Your task to perform on an android device: delete browsing data in the chrome app Image 0: 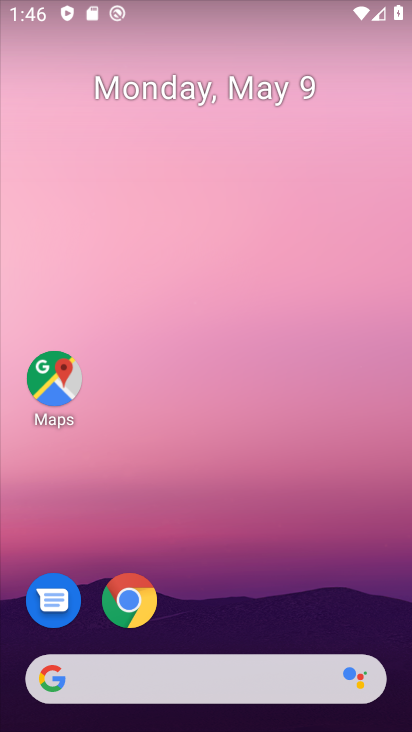
Step 0: click (139, 599)
Your task to perform on an android device: delete browsing data in the chrome app Image 1: 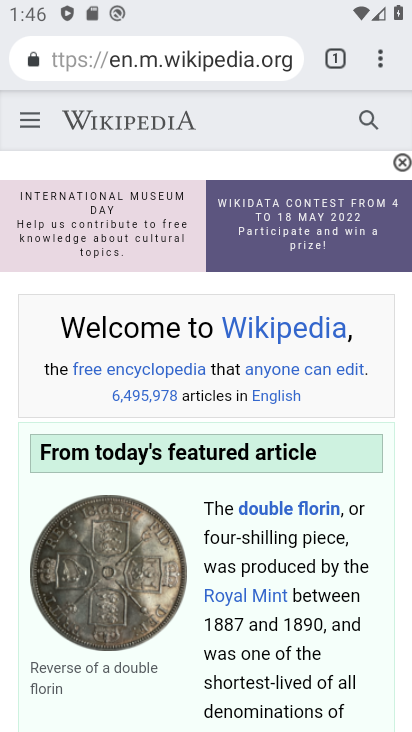
Step 1: click (371, 51)
Your task to perform on an android device: delete browsing data in the chrome app Image 2: 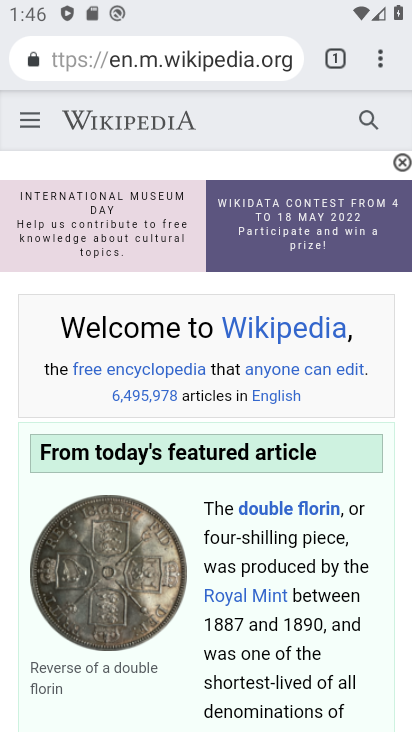
Step 2: click (371, 51)
Your task to perform on an android device: delete browsing data in the chrome app Image 3: 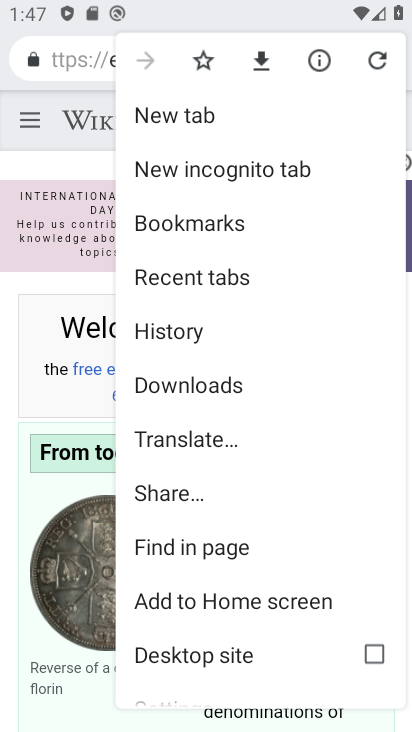
Step 3: click (195, 343)
Your task to perform on an android device: delete browsing data in the chrome app Image 4: 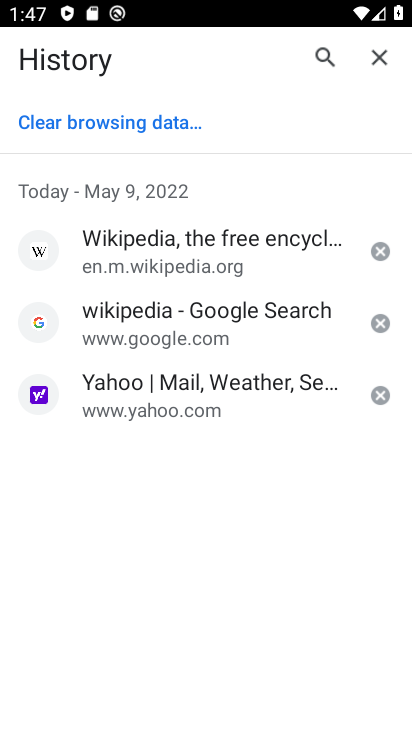
Step 4: click (70, 102)
Your task to perform on an android device: delete browsing data in the chrome app Image 5: 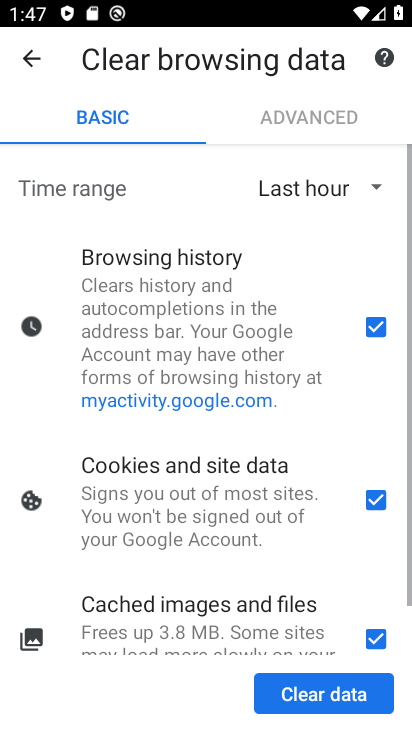
Step 5: click (313, 689)
Your task to perform on an android device: delete browsing data in the chrome app Image 6: 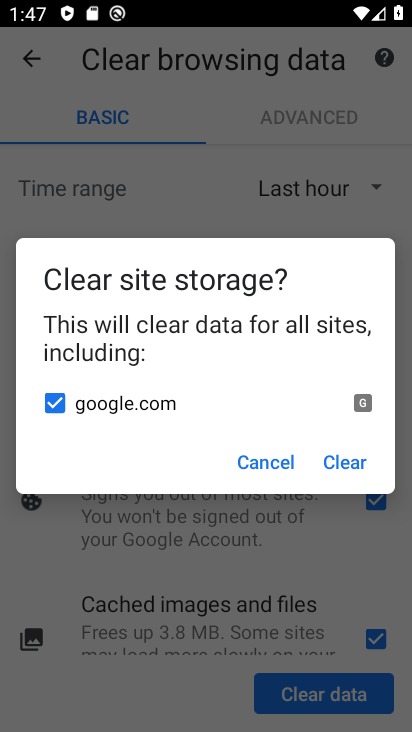
Step 6: click (346, 461)
Your task to perform on an android device: delete browsing data in the chrome app Image 7: 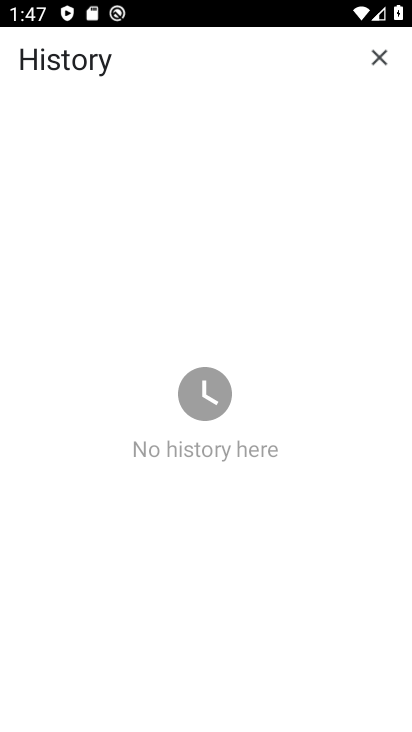
Step 7: task complete